Your task to perform on an android device: Go to Reddit.com Image 0: 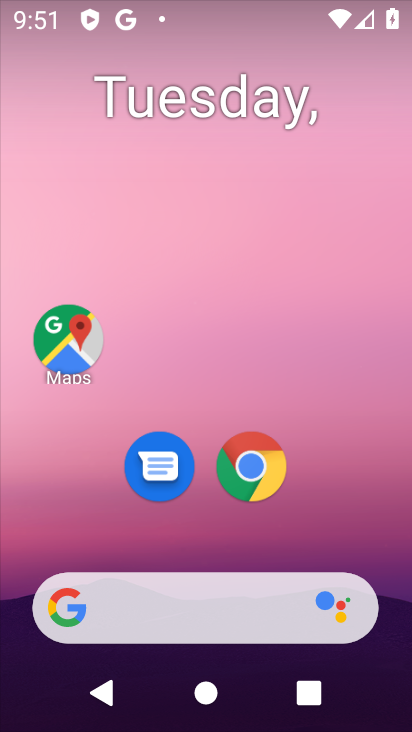
Step 0: click (241, 463)
Your task to perform on an android device: Go to Reddit.com Image 1: 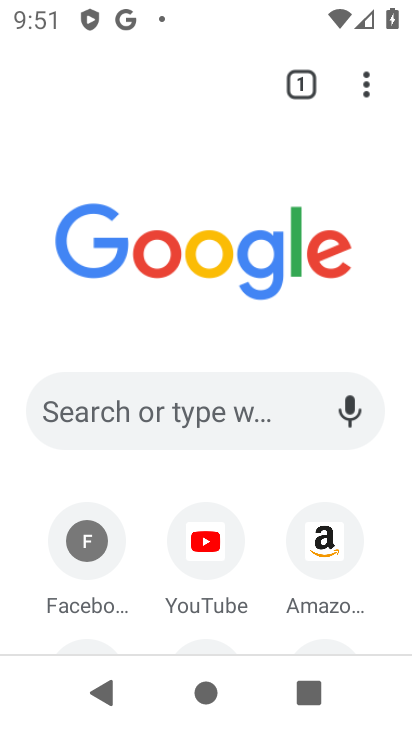
Step 1: click (254, 429)
Your task to perform on an android device: Go to Reddit.com Image 2: 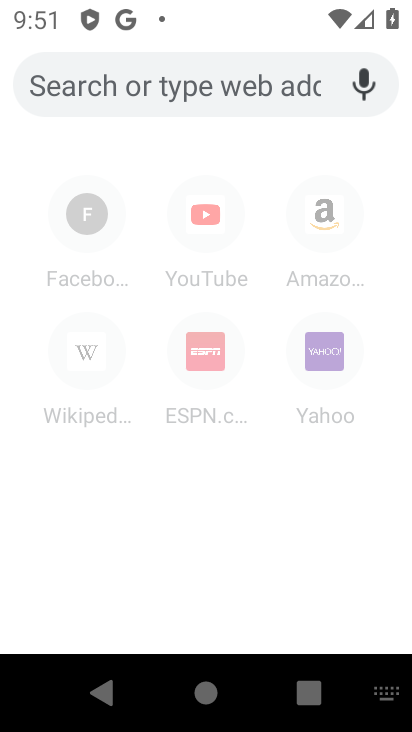
Step 2: type "reddit.com"
Your task to perform on an android device: Go to Reddit.com Image 3: 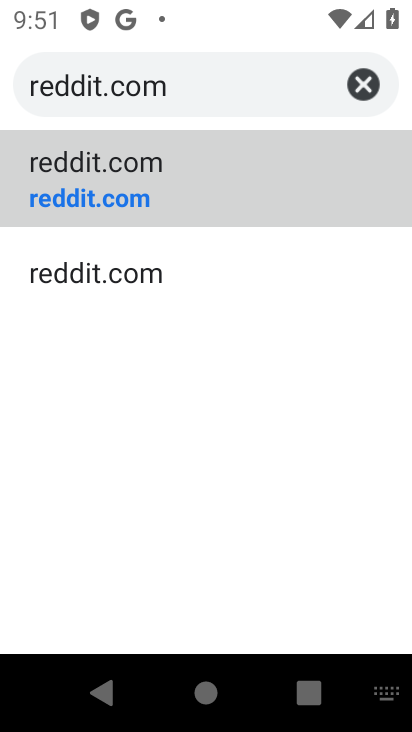
Step 3: click (87, 199)
Your task to perform on an android device: Go to Reddit.com Image 4: 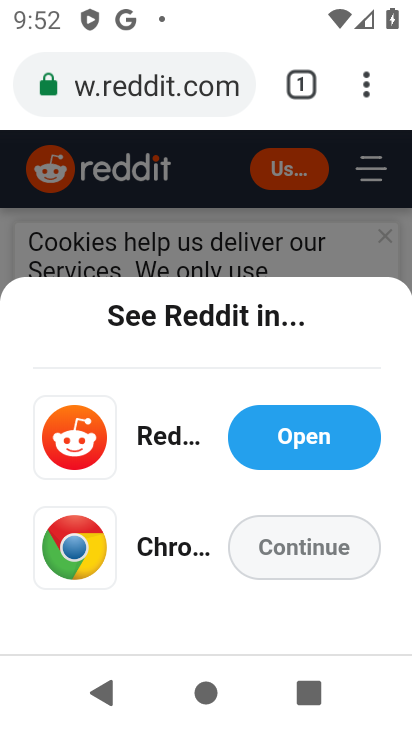
Step 4: task complete